Your task to perform on an android device: Search for vegetarian restaurants on Maps Image 0: 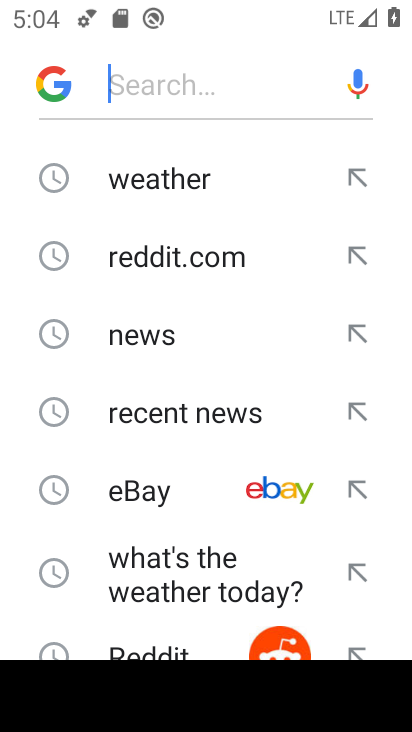
Step 0: press home button
Your task to perform on an android device: Search for vegetarian restaurants on Maps Image 1: 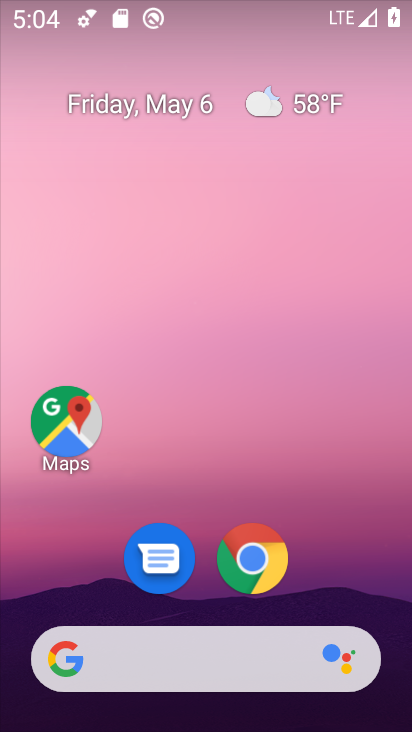
Step 1: drag from (273, 604) to (264, 77)
Your task to perform on an android device: Search for vegetarian restaurants on Maps Image 2: 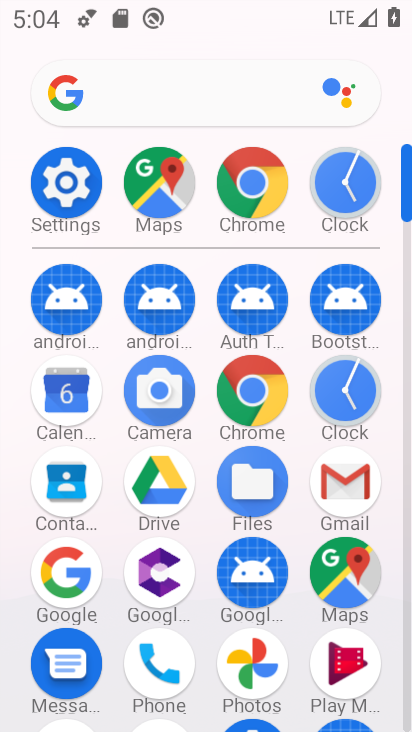
Step 2: click (332, 589)
Your task to perform on an android device: Search for vegetarian restaurants on Maps Image 3: 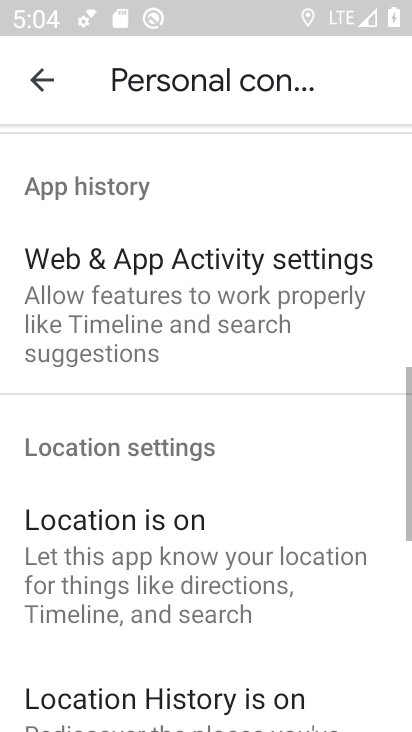
Step 3: press back button
Your task to perform on an android device: Search for vegetarian restaurants on Maps Image 4: 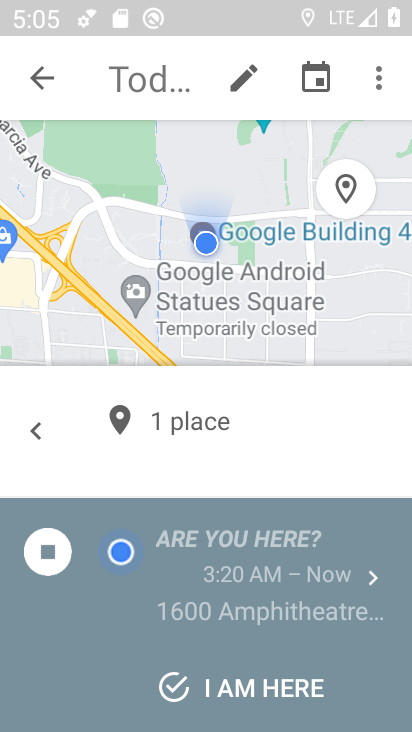
Step 4: press back button
Your task to perform on an android device: Search for vegetarian restaurants on Maps Image 5: 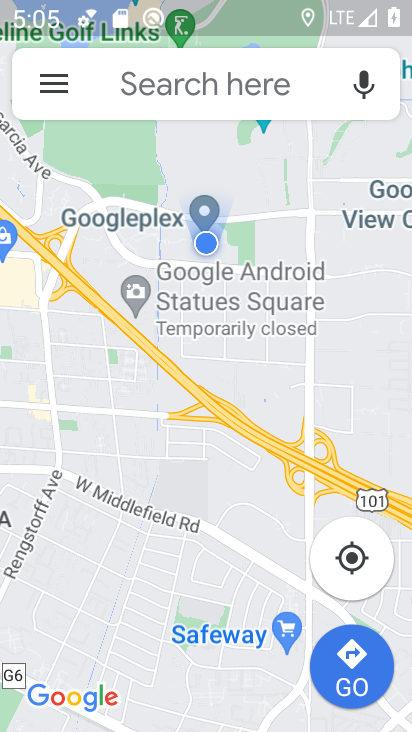
Step 5: click (257, 74)
Your task to perform on an android device: Search for vegetarian restaurants on Maps Image 6: 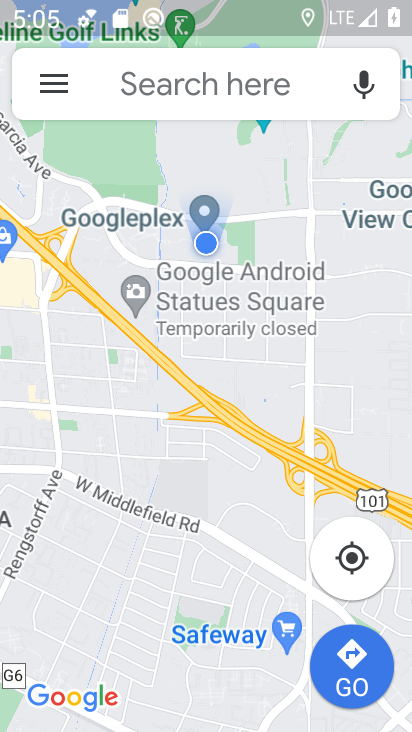
Step 6: click (257, 74)
Your task to perform on an android device: Search for vegetarian restaurants on Maps Image 7: 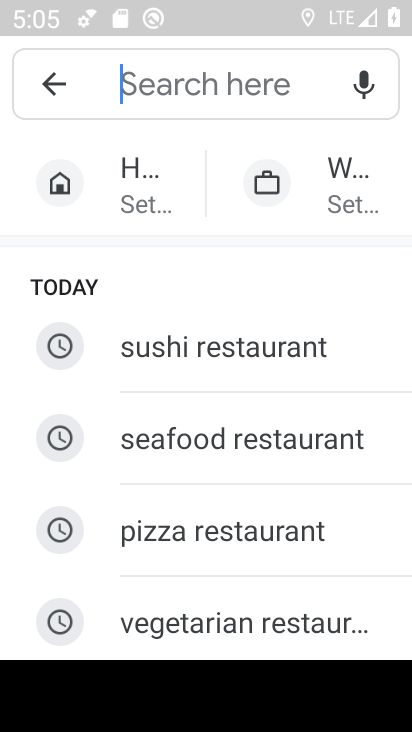
Step 7: type "vegetarian restaurant"
Your task to perform on an android device: Search for vegetarian restaurants on Maps Image 8: 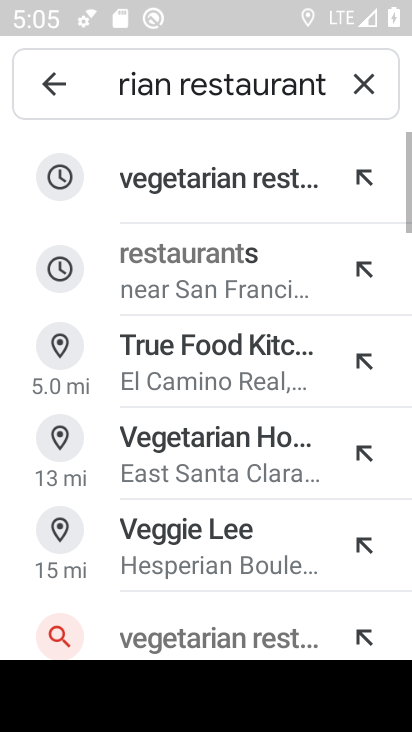
Step 8: click (202, 183)
Your task to perform on an android device: Search for vegetarian restaurants on Maps Image 9: 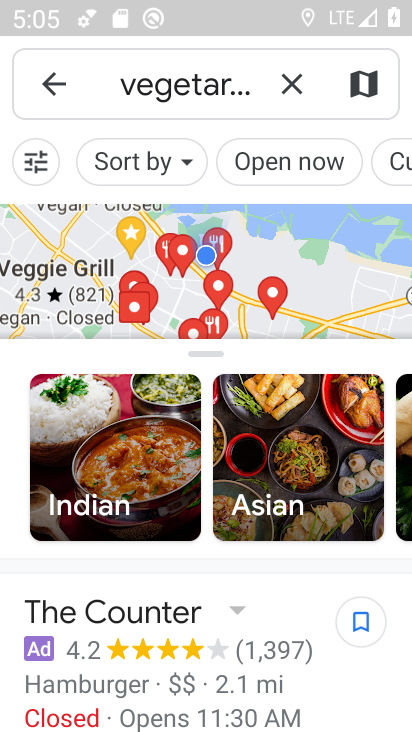
Step 9: task complete